Your task to perform on an android device: set the timer Image 0: 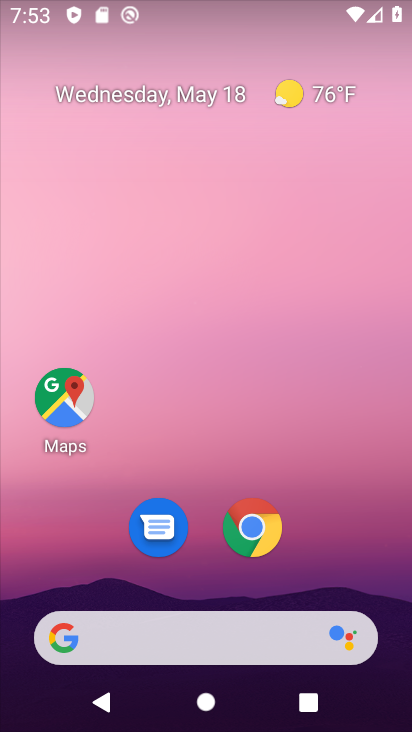
Step 0: drag from (385, 689) to (379, 87)
Your task to perform on an android device: set the timer Image 1: 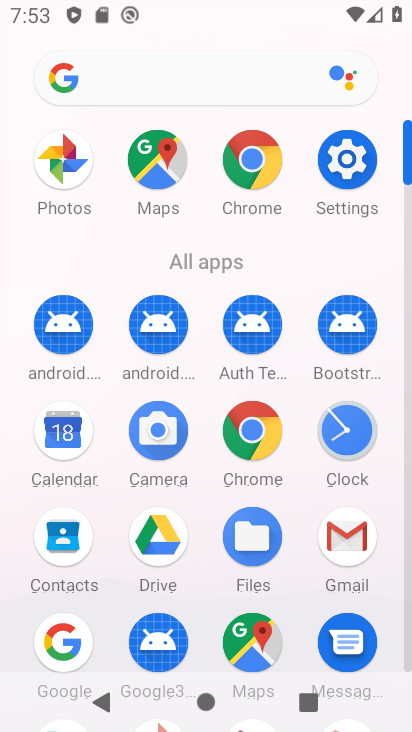
Step 1: click (341, 434)
Your task to perform on an android device: set the timer Image 2: 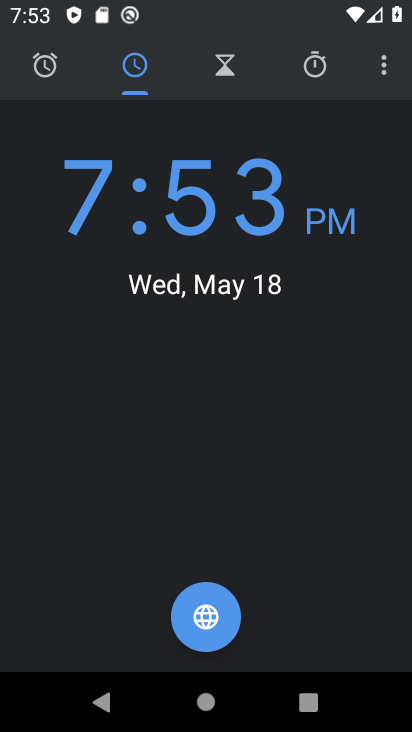
Step 2: click (320, 69)
Your task to perform on an android device: set the timer Image 3: 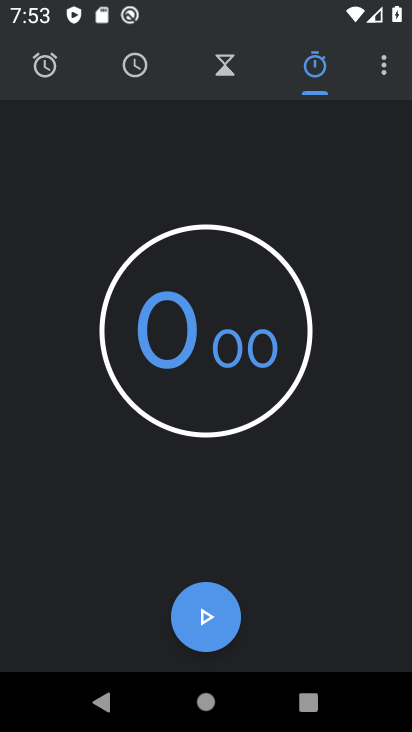
Step 3: click (201, 627)
Your task to perform on an android device: set the timer Image 4: 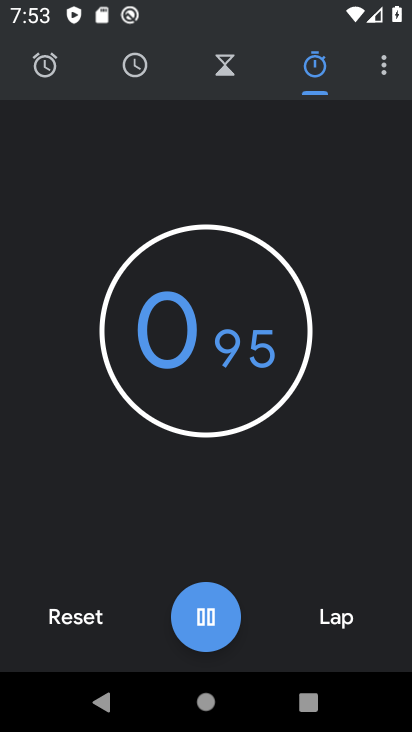
Step 4: task complete